Your task to perform on an android device: Open Google Chrome Image 0: 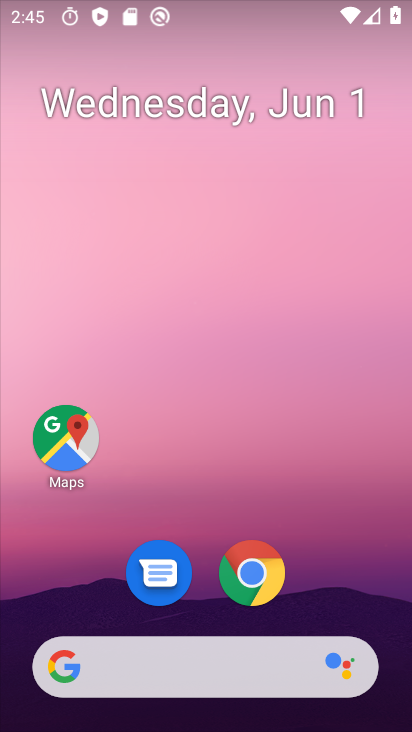
Step 0: click (259, 595)
Your task to perform on an android device: Open Google Chrome Image 1: 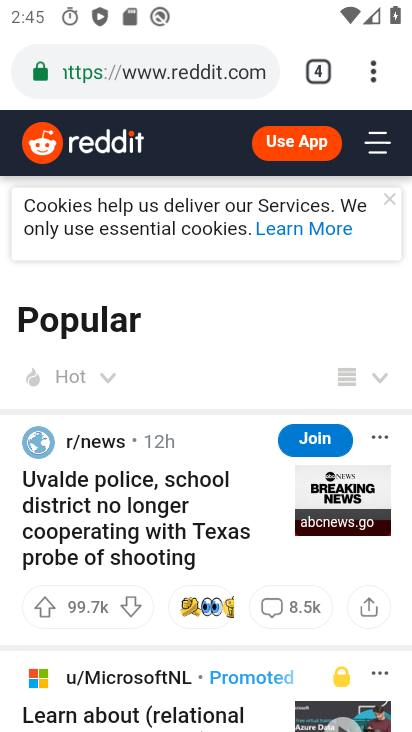
Step 1: task complete